Your task to perform on an android device: open the mobile data screen to see how much data has been used Image 0: 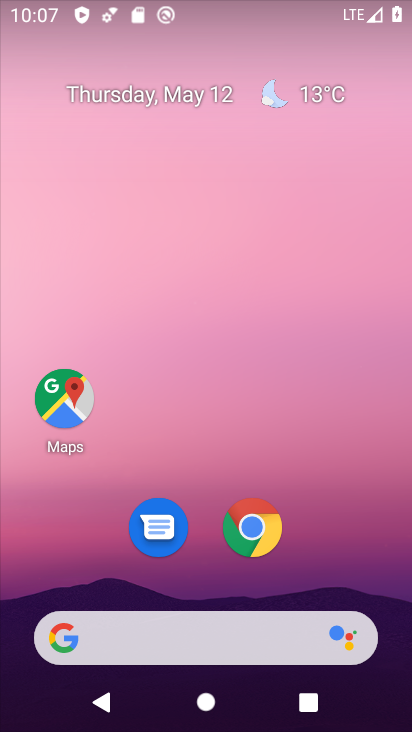
Step 0: drag from (350, 521) to (399, 59)
Your task to perform on an android device: open the mobile data screen to see how much data has been used Image 1: 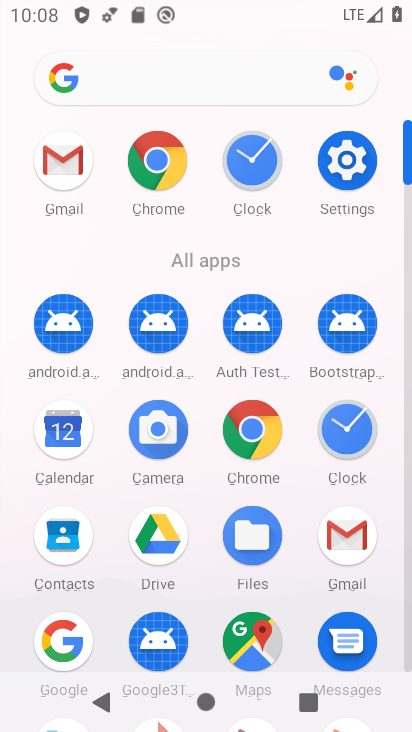
Step 1: click (346, 173)
Your task to perform on an android device: open the mobile data screen to see how much data has been used Image 2: 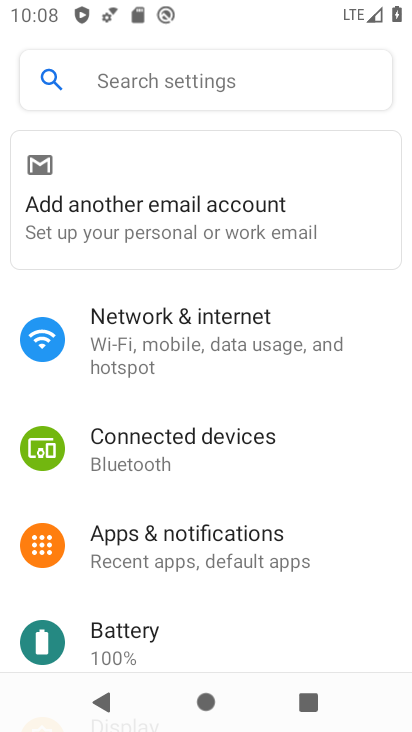
Step 2: click (227, 325)
Your task to perform on an android device: open the mobile data screen to see how much data has been used Image 3: 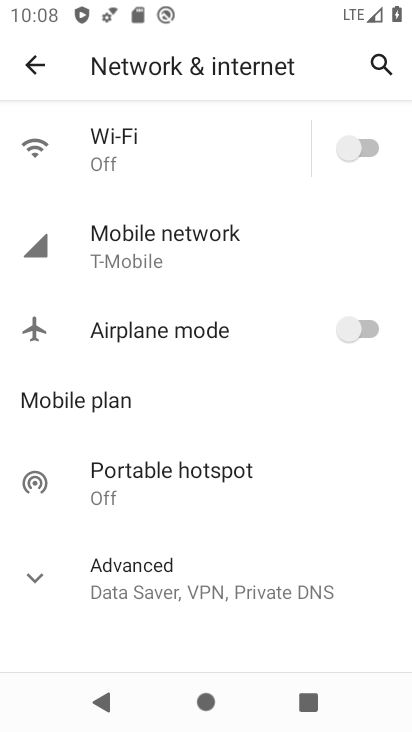
Step 3: click (130, 242)
Your task to perform on an android device: open the mobile data screen to see how much data has been used Image 4: 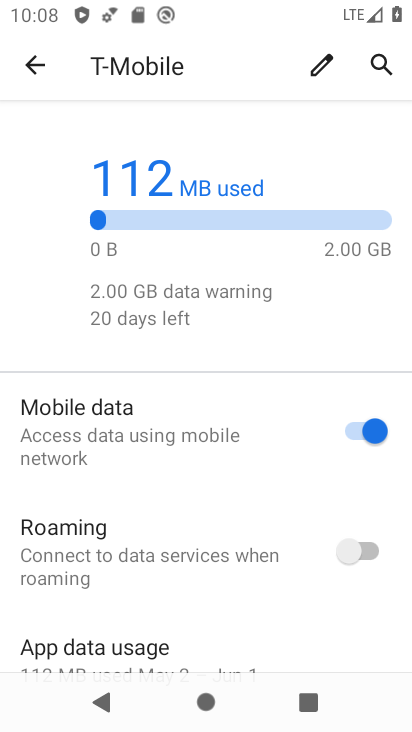
Step 4: task complete